Your task to perform on an android device: toggle show notifications on the lock screen Image 0: 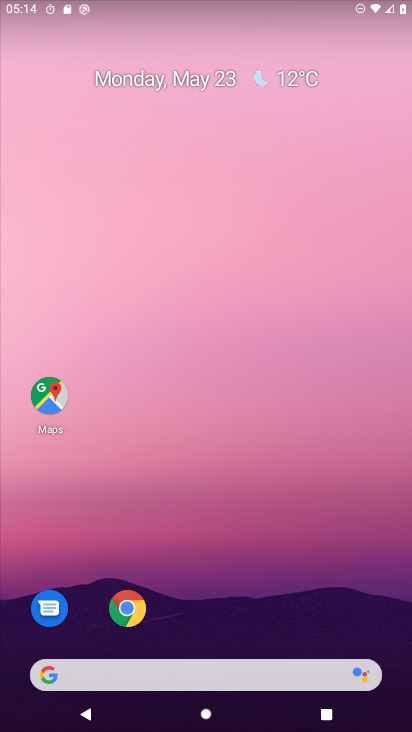
Step 0: press home button
Your task to perform on an android device: toggle show notifications on the lock screen Image 1: 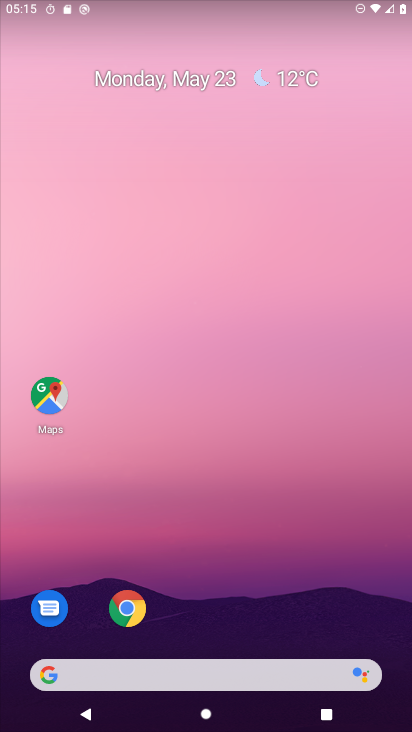
Step 1: drag from (282, 612) to (162, 102)
Your task to perform on an android device: toggle show notifications on the lock screen Image 2: 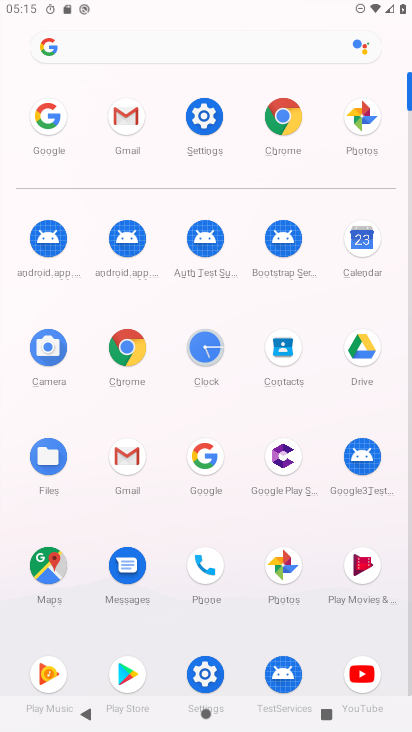
Step 2: click (200, 115)
Your task to perform on an android device: toggle show notifications on the lock screen Image 3: 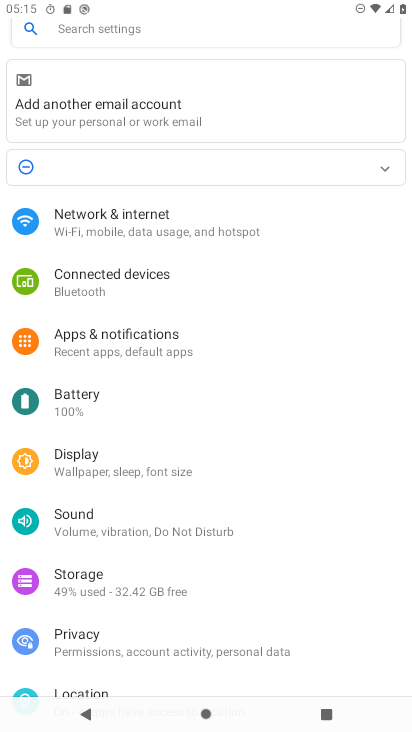
Step 3: click (174, 347)
Your task to perform on an android device: toggle show notifications on the lock screen Image 4: 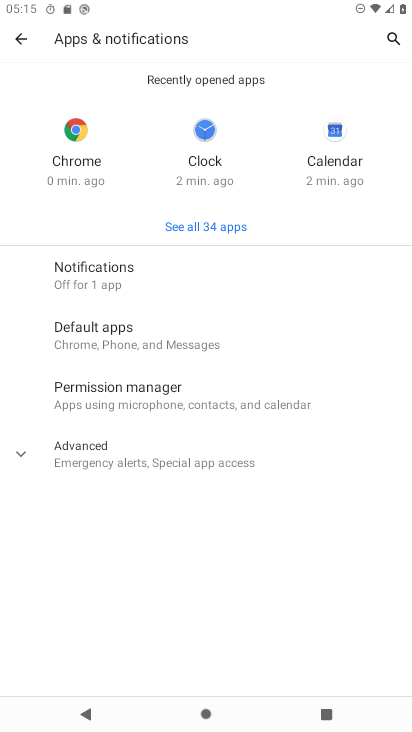
Step 4: click (185, 264)
Your task to perform on an android device: toggle show notifications on the lock screen Image 5: 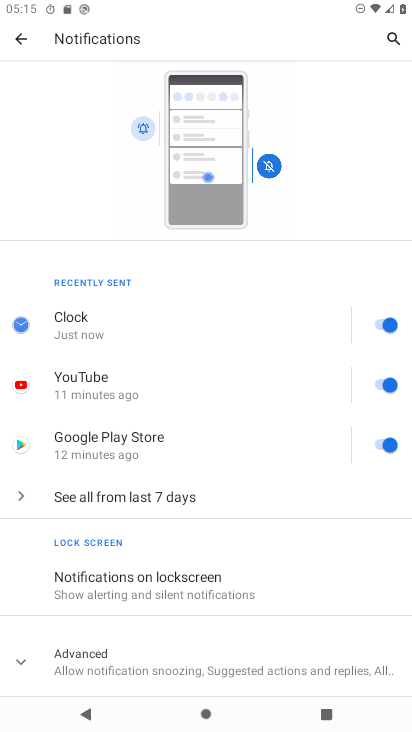
Step 5: click (214, 594)
Your task to perform on an android device: toggle show notifications on the lock screen Image 6: 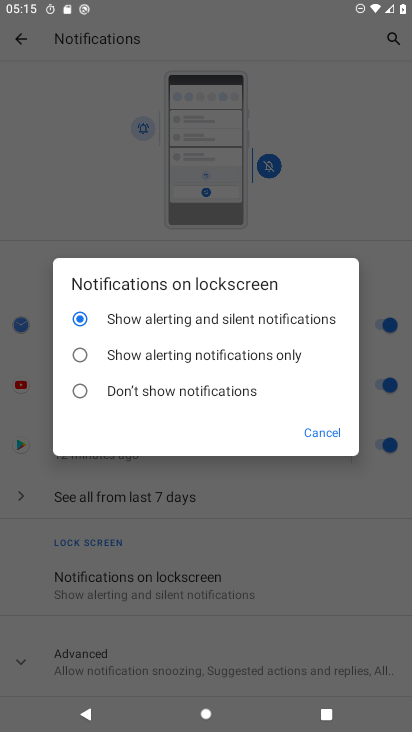
Step 6: click (151, 393)
Your task to perform on an android device: toggle show notifications on the lock screen Image 7: 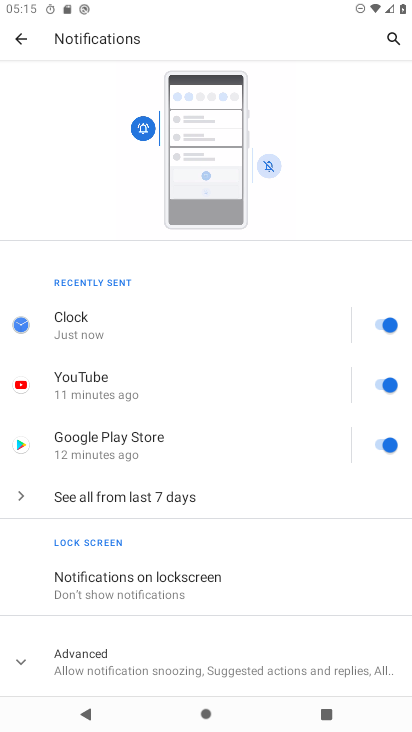
Step 7: task complete